Your task to perform on an android device: Open settings Image 0: 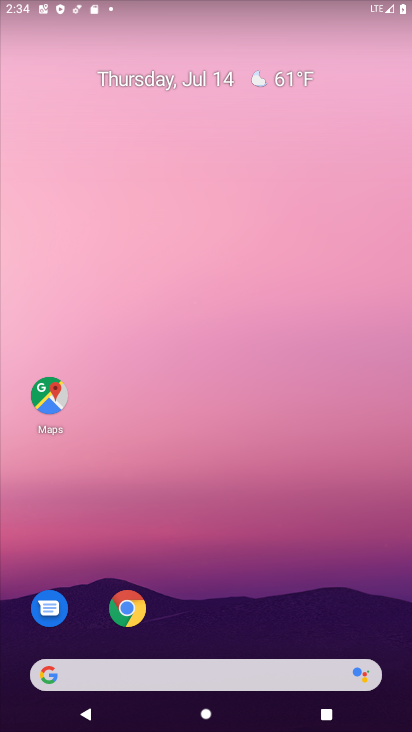
Step 0: drag from (299, 532) to (294, 199)
Your task to perform on an android device: Open settings Image 1: 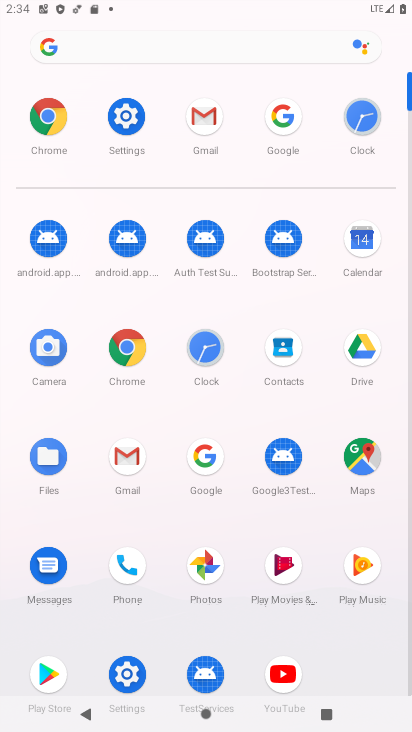
Step 1: click (107, 101)
Your task to perform on an android device: Open settings Image 2: 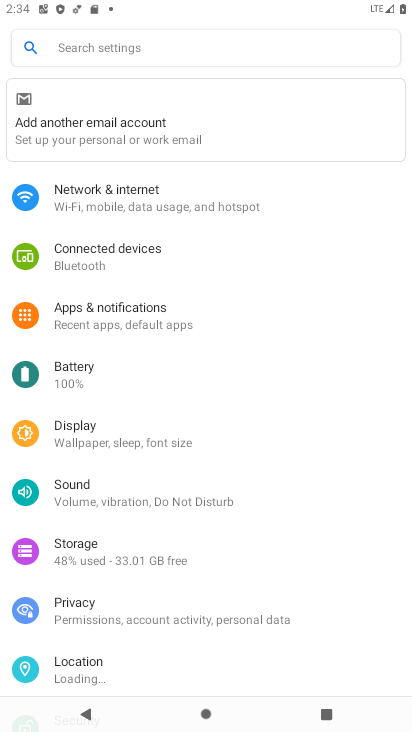
Step 2: task complete